Your task to perform on an android device: check data usage Image 0: 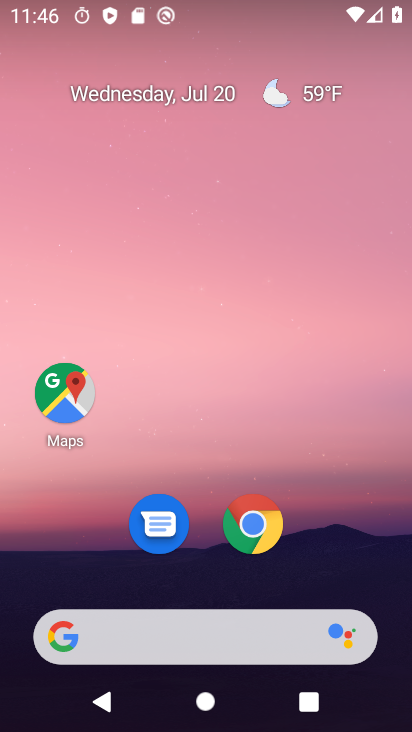
Step 0: drag from (209, 617) to (257, 172)
Your task to perform on an android device: check data usage Image 1: 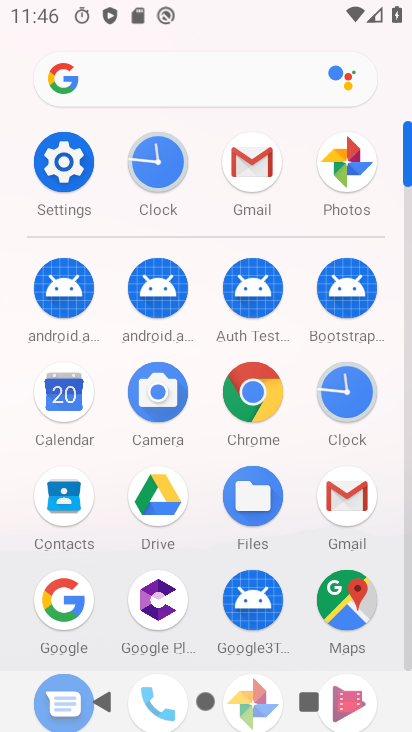
Step 1: click (58, 164)
Your task to perform on an android device: check data usage Image 2: 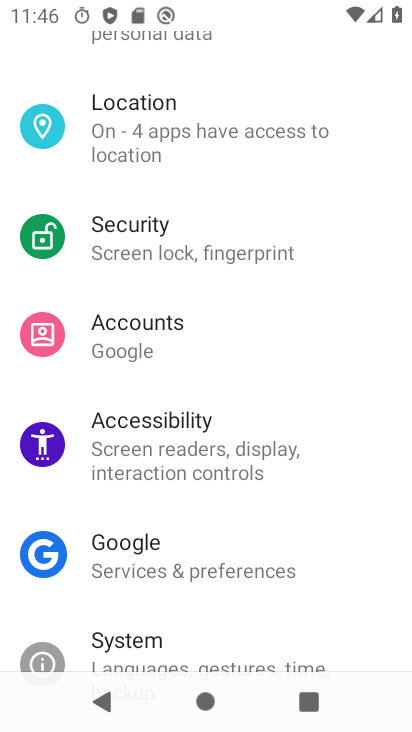
Step 2: drag from (283, 93) to (253, 614)
Your task to perform on an android device: check data usage Image 3: 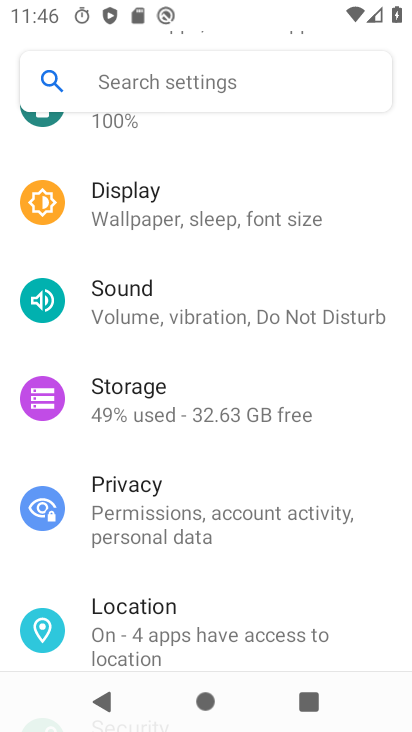
Step 3: drag from (272, 172) to (186, 563)
Your task to perform on an android device: check data usage Image 4: 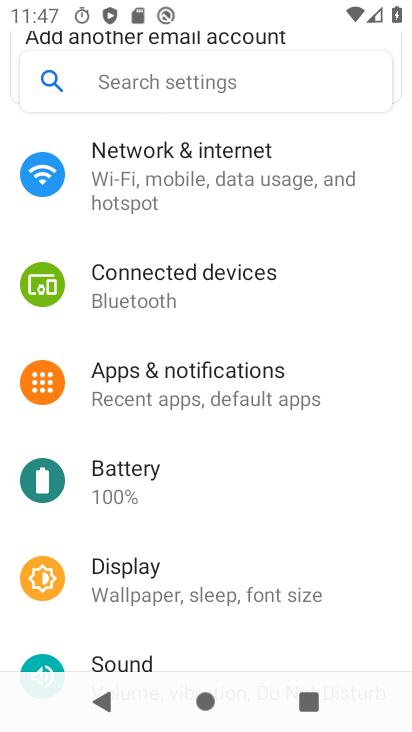
Step 4: click (233, 155)
Your task to perform on an android device: check data usage Image 5: 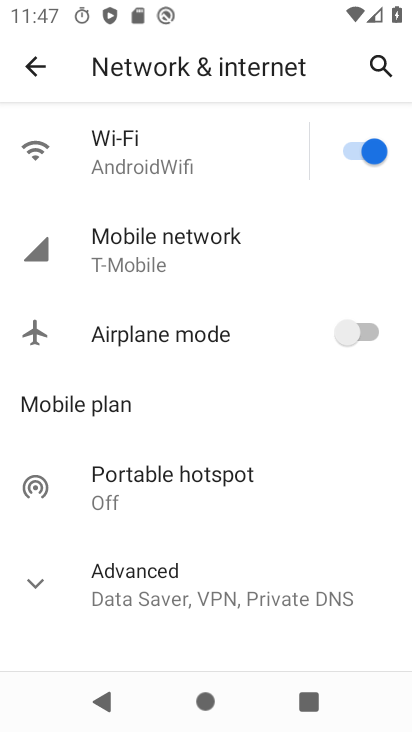
Step 5: click (145, 151)
Your task to perform on an android device: check data usage Image 6: 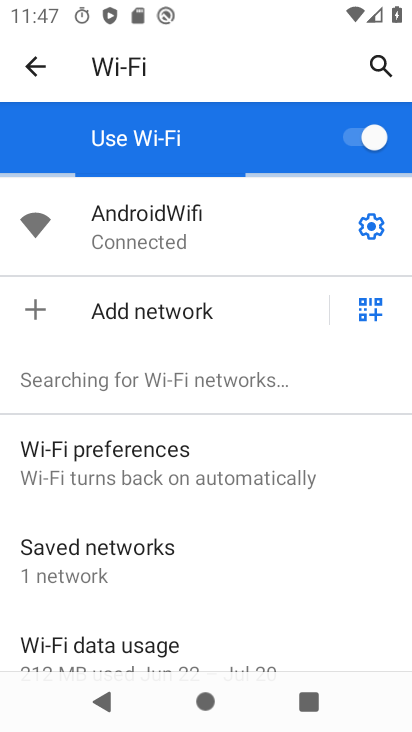
Step 6: drag from (187, 572) to (284, 136)
Your task to perform on an android device: check data usage Image 7: 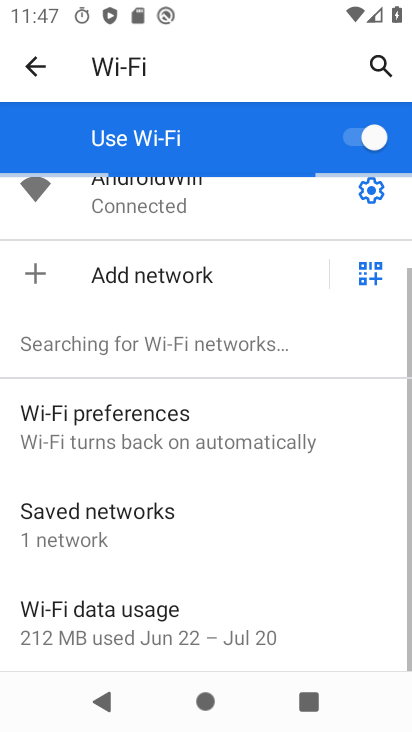
Step 7: click (139, 611)
Your task to perform on an android device: check data usage Image 8: 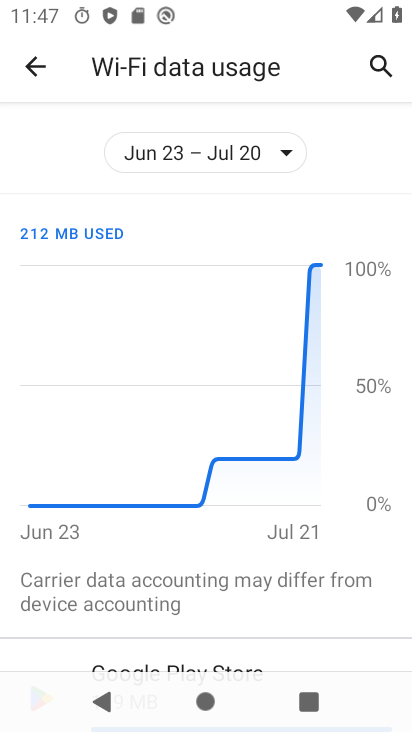
Step 8: task complete